Your task to perform on an android device: turn off notifications in google photos Image 0: 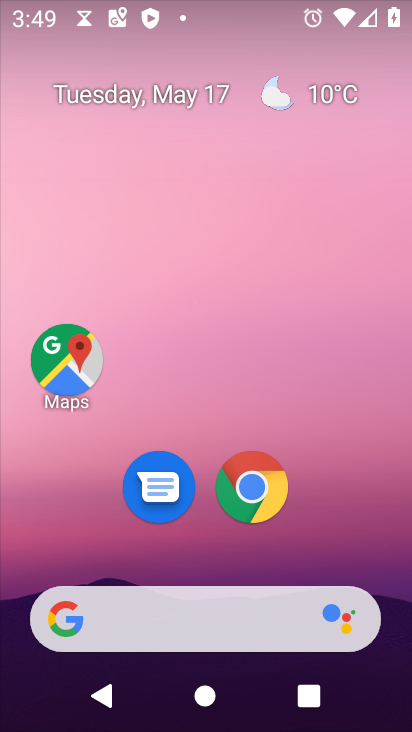
Step 0: drag from (398, 610) to (353, 67)
Your task to perform on an android device: turn off notifications in google photos Image 1: 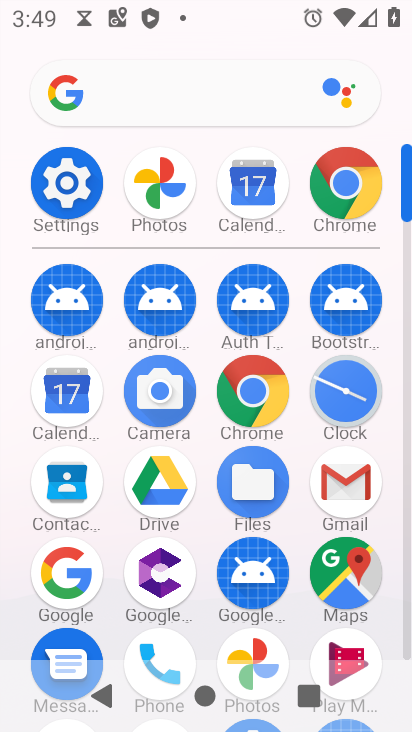
Step 1: click (407, 635)
Your task to perform on an android device: turn off notifications in google photos Image 2: 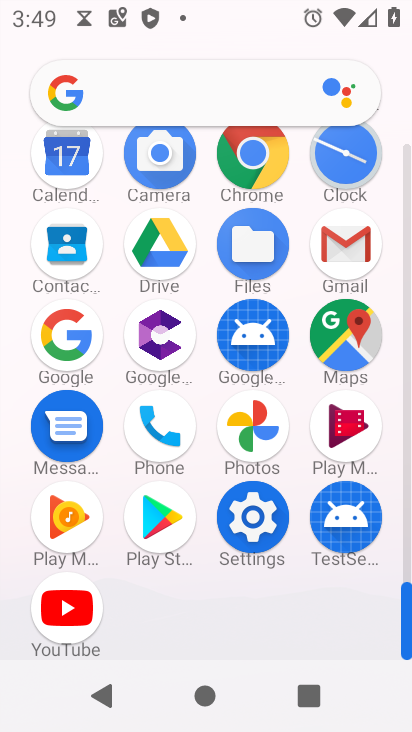
Step 2: click (253, 424)
Your task to perform on an android device: turn off notifications in google photos Image 3: 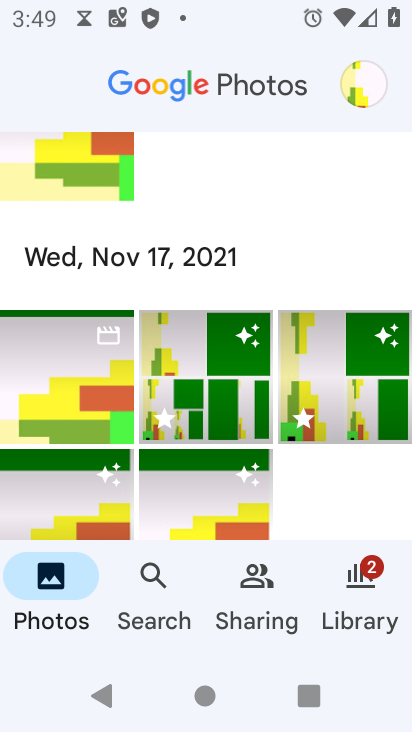
Step 3: click (369, 90)
Your task to perform on an android device: turn off notifications in google photos Image 4: 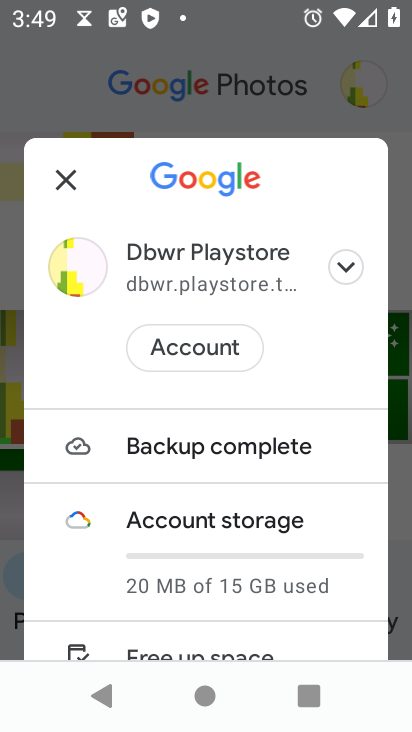
Step 4: drag from (278, 576) to (319, 213)
Your task to perform on an android device: turn off notifications in google photos Image 5: 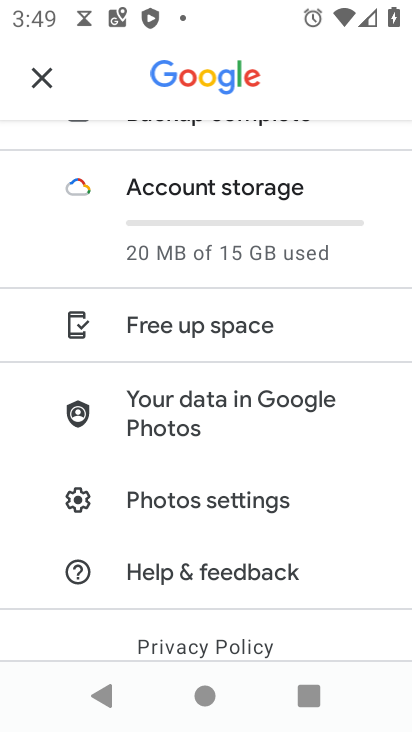
Step 5: click (177, 507)
Your task to perform on an android device: turn off notifications in google photos Image 6: 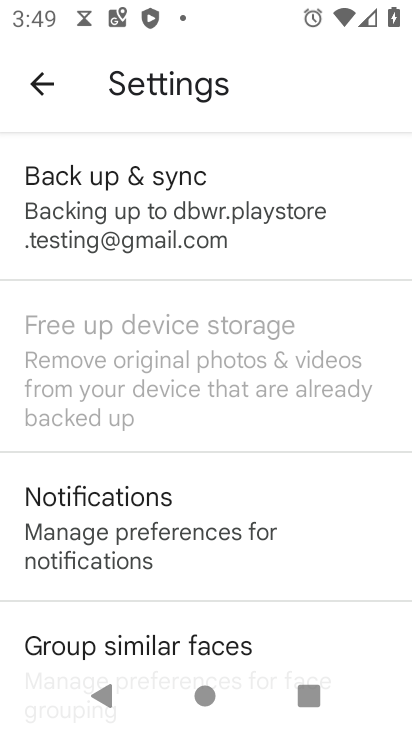
Step 6: click (131, 517)
Your task to perform on an android device: turn off notifications in google photos Image 7: 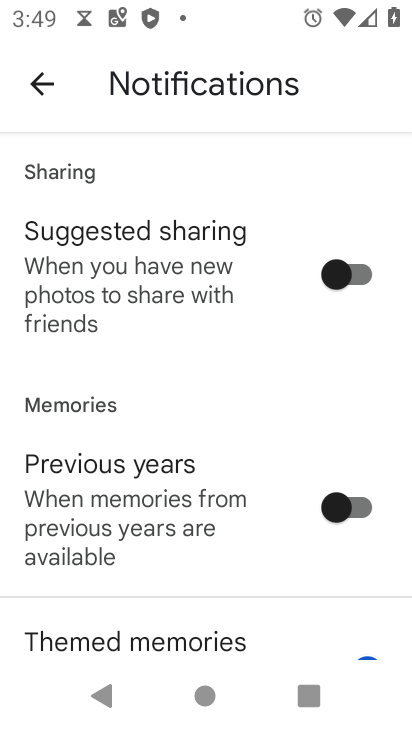
Step 7: drag from (172, 632) to (234, 77)
Your task to perform on an android device: turn off notifications in google photos Image 8: 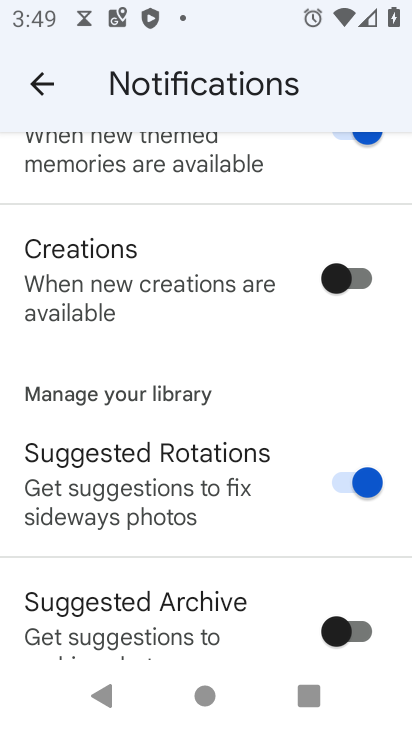
Step 8: drag from (251, 591) to (250, 6)
Your task to perform on an android device: turn off notifications in google photos Image 9: 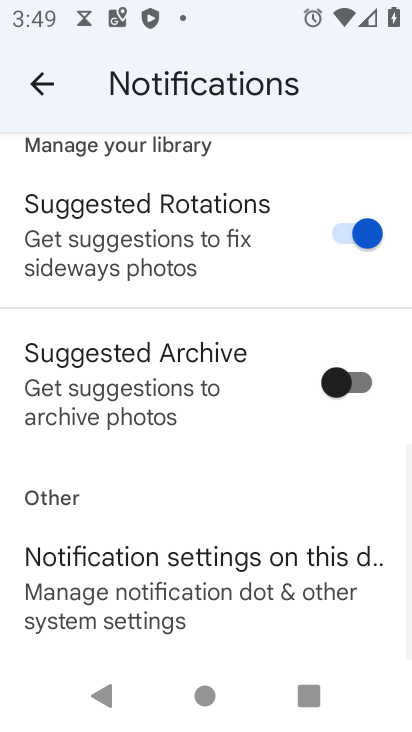
Step 9: click (126, 570)
Your task to perform on an android device: turn off notifications in google photos Image 10: 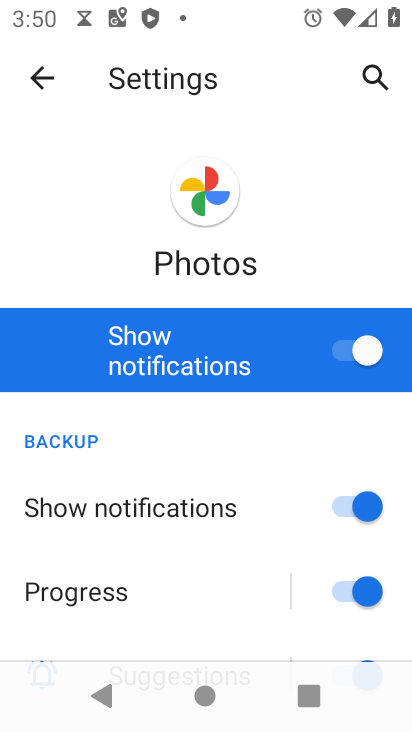
Step 10: click (332, 351)
Your task to perform on an android device: turn off notifications in google photos Image 11: 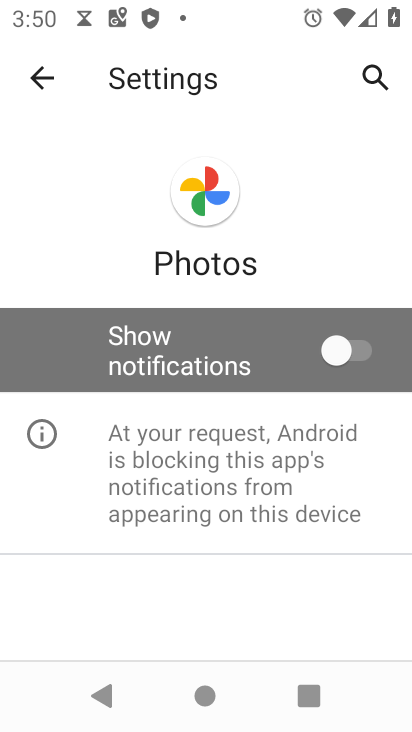
Step 11: task complete